Your task to perform on an android device: toggle notification dots Image 0: 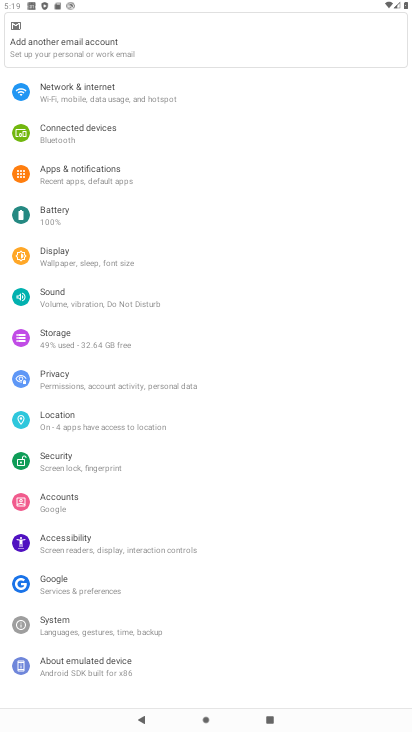
Step 0: press home button
Your task to perform on an android device: toggle notification dots Image 1: 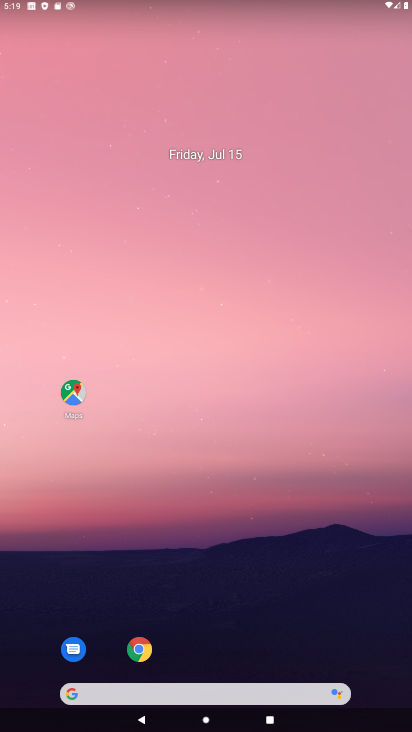
Step 1: drag from (184, 693) to (252, 152)
Your task to perform on an android device: toggle notification dots Image 2: 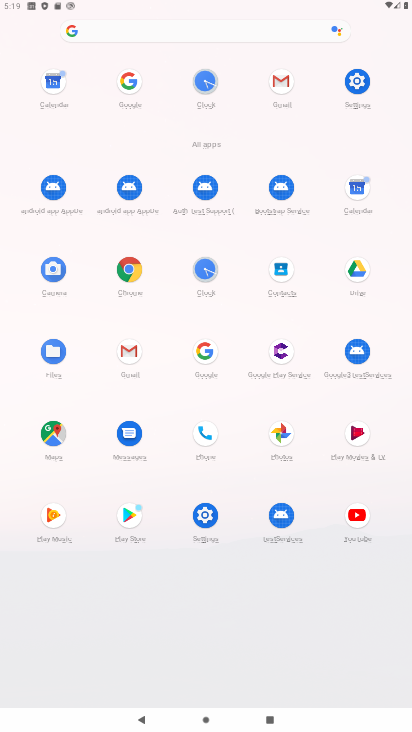
Step 2: click (208, 517)
Your task to perform on an android device: toggle notification dots Image 3: 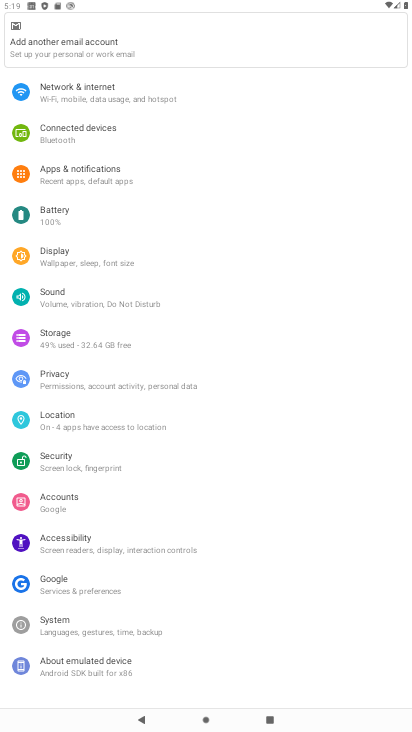
Step 3: click (76, 172)
Your task to perform on an android device: toggle notification dots Image 4: 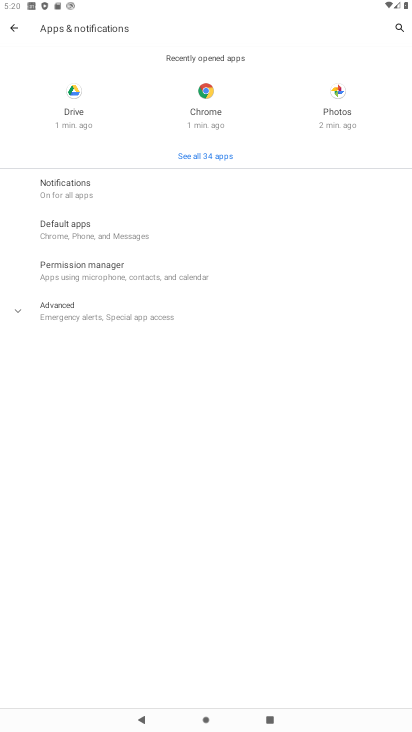
Step 4: click (76, 194)
Your task to perform on an android device: toggle notification dots Image 5: 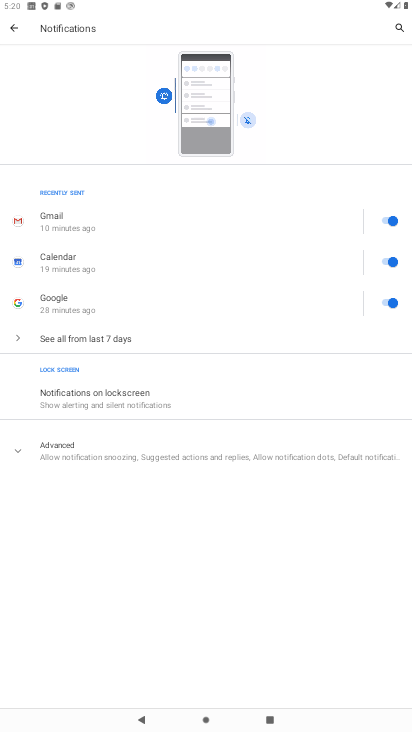
Step 5: click (83, 454)
Your task to perform on an android device: toggle notification dots Image 6: 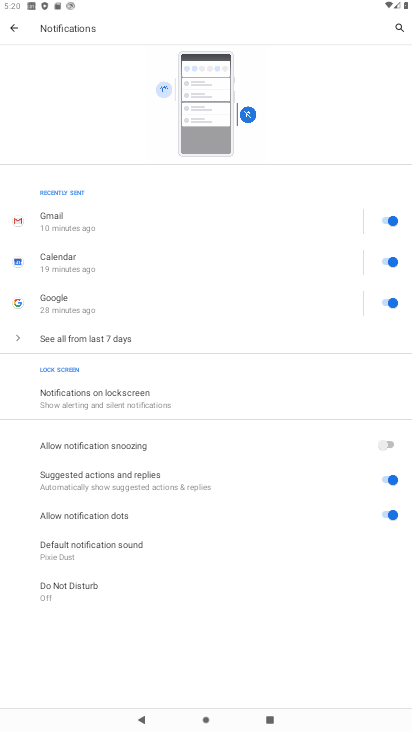
Step 6: click (392, 516)
Your task to perform on an android device: toggle notification dots Image 7: 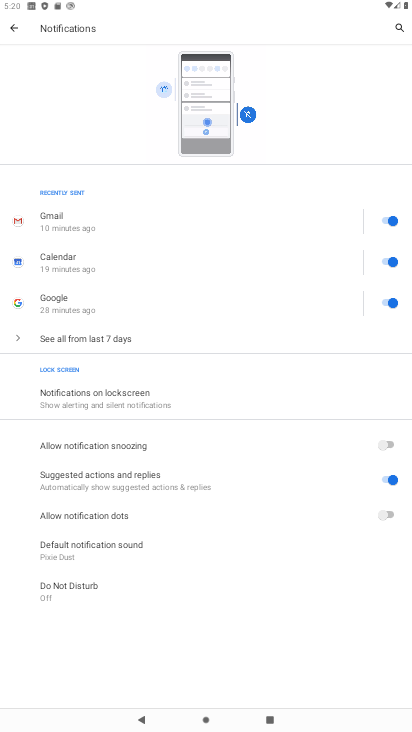
Step 7: task complete